Your task to perform on an android device: Open Google Chrome and click the shortcut for Amazon.com Image 0: 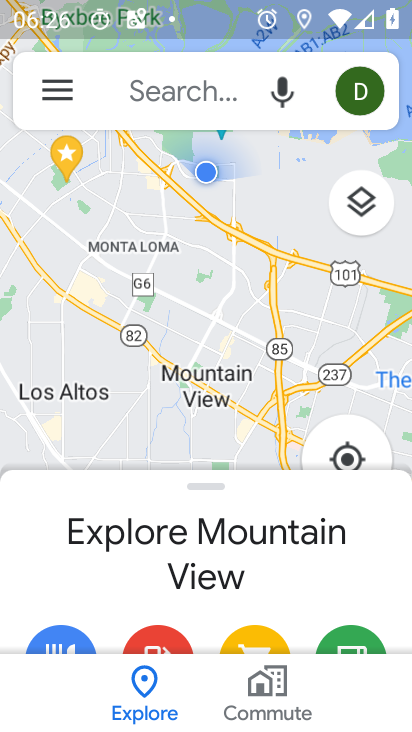
Step 0: press home button
Your task to perform on an android device: Open Google Chrome and click the shortcut for Amazon.com Image 1: 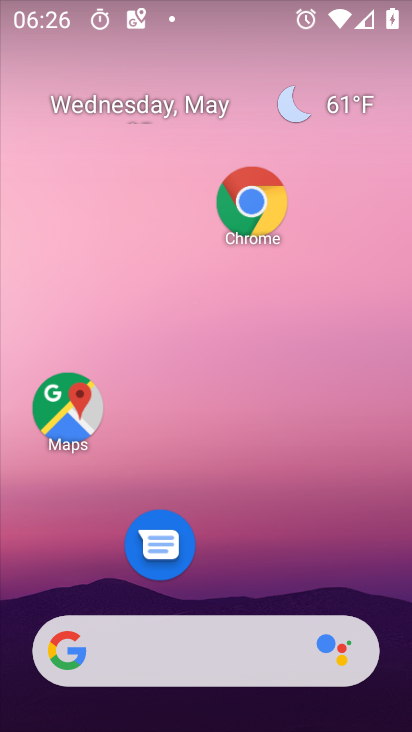
Step 1: click (266, 194)
Your task to perform on an android device: Open Google Chrome and click the shortcut for Amazon.com Image 2: 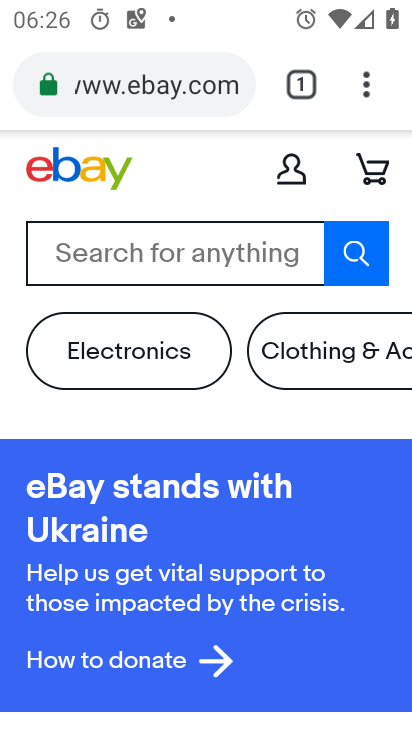
Step 2: click (294, 85)
Your task to perform on an android device: Open Google Chrome and click the shortcut for Amazon.com Image 3: 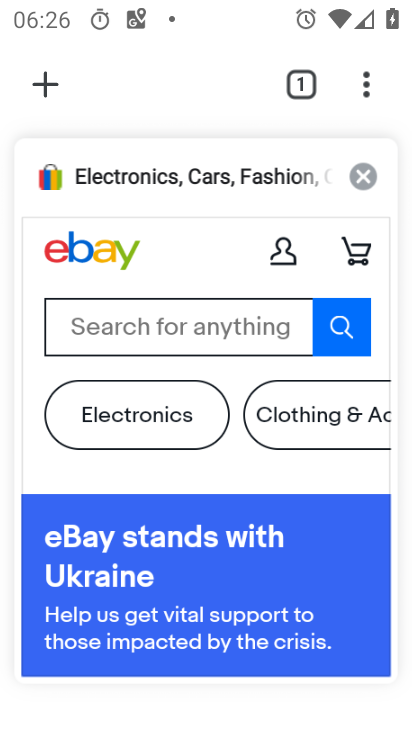
Step 3: click (363, 185)
Your task to perform on an android device: Open Google Chrome and click the shortcut for Amazon.com Image 4: 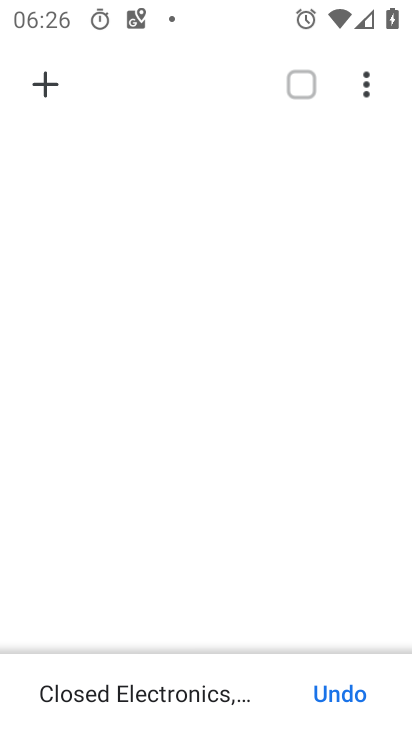
Step 4: click (39, 63)
Your task to perform on an android device: Open Google Chrome and click the shortcut for Amazon.com Image 5: 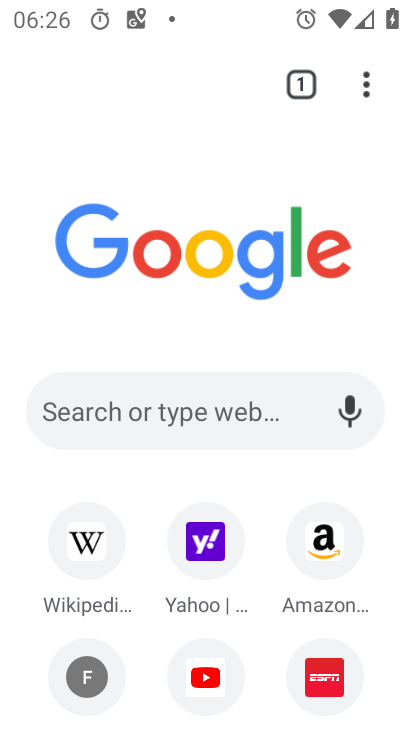
Step 5: click (326, 542)
Your task to perform on an android device: Open Google Chrome and click the shortcut for Amazon.com Image 6: 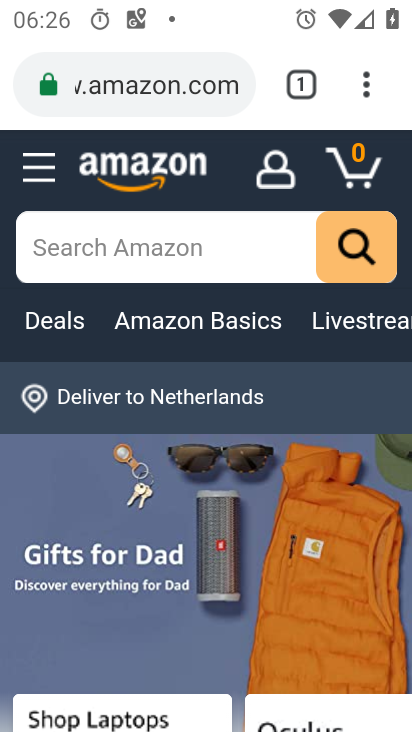
Step 6: task complete